Your task to perform on an android device: change the clock display to show seconds Image 0: 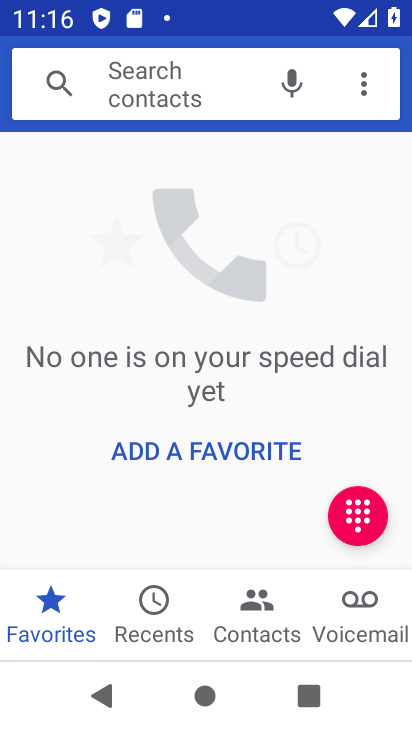
Step 0: press home button
Your task to perform on an android device: change the clock display to show seconds Image 1: 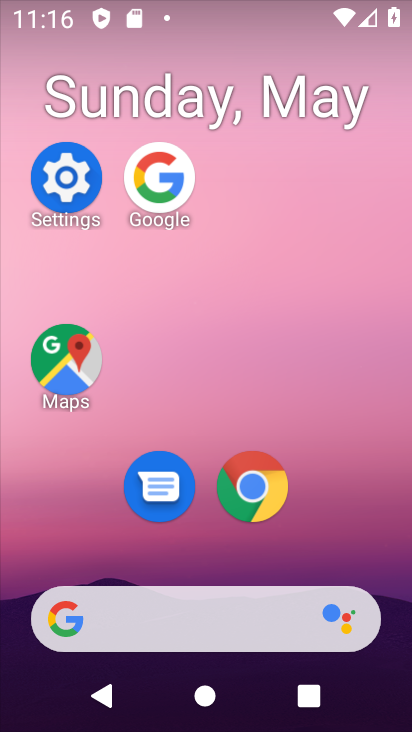
Step 1: drag from (291, 562) to (243, 113)
Your task to perform on an android device: change the clock display to show seconds Image 2: 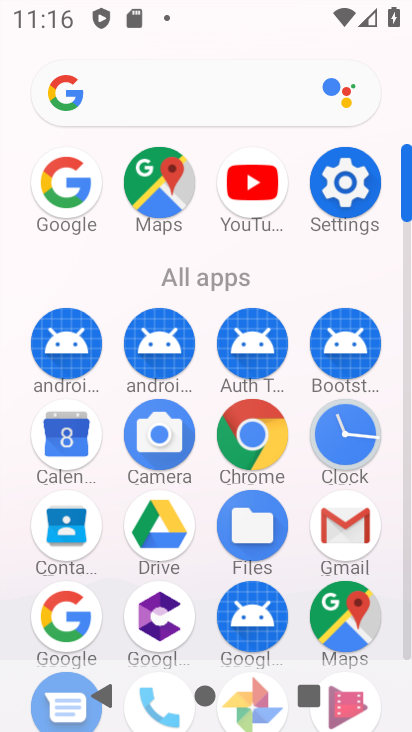
Step 2: drag from (344, 447) to (106, 234)
Your task to perform on an android device: change the clock display to show seconds Image 3: 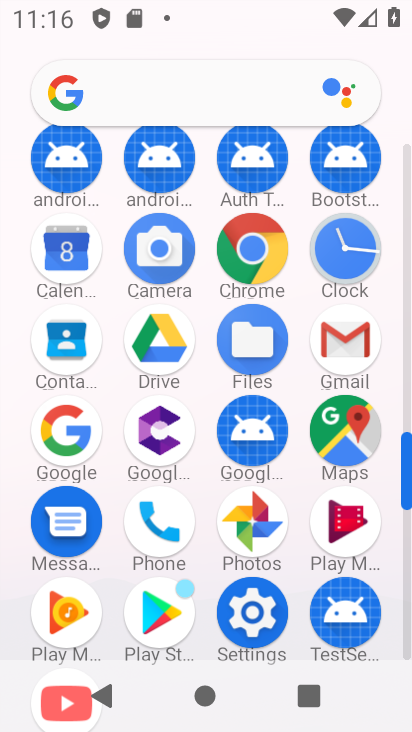
Step 3: drag from (330, 250) to (84, 292)
Your task to perform on an android device: change the clock display to show seconds Image 4: 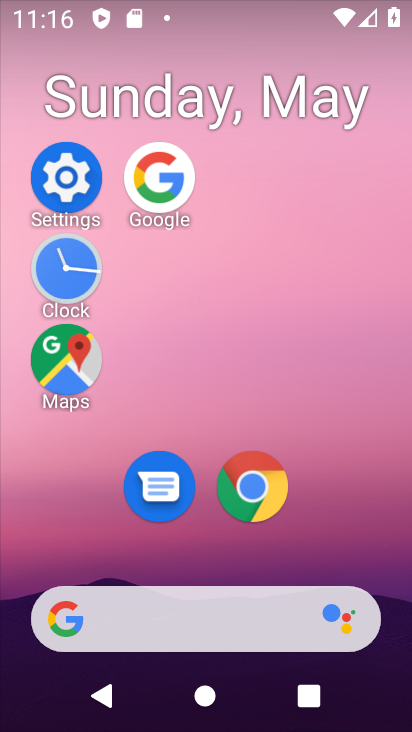
Step 4: click (96, 278)
Your task to perform on an android device: change the clock display to show seconds Image 5: 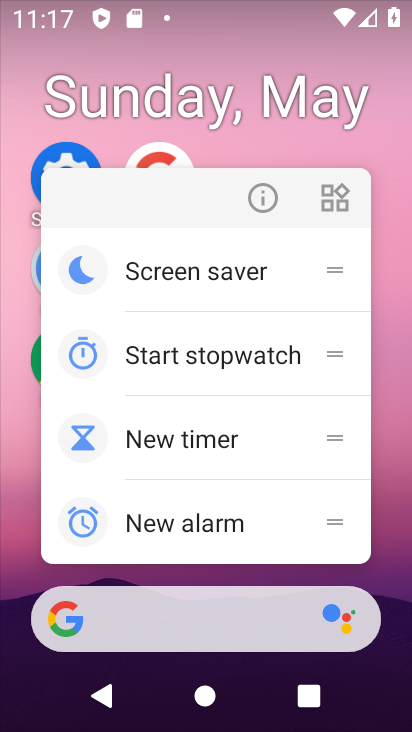
Step 5: click (26, 280)
Your task to perform on an android device: change the clock display to show seconds Image 6: 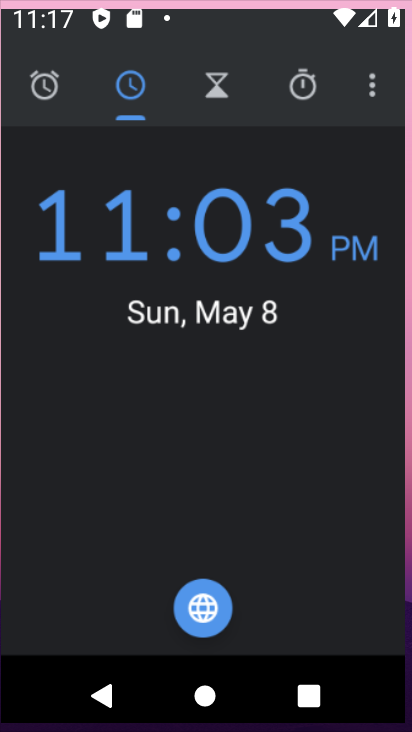
Step 6: click (35, 277)
Your task to perform on an android device: change the clock display to show seconds Image 7: 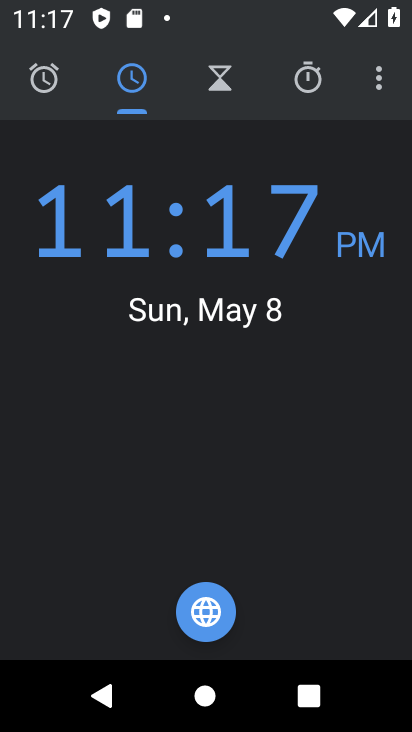
Step 7: click (372, 82)
Your task to perform on an android device: change the clock display to show seconds Image 8: 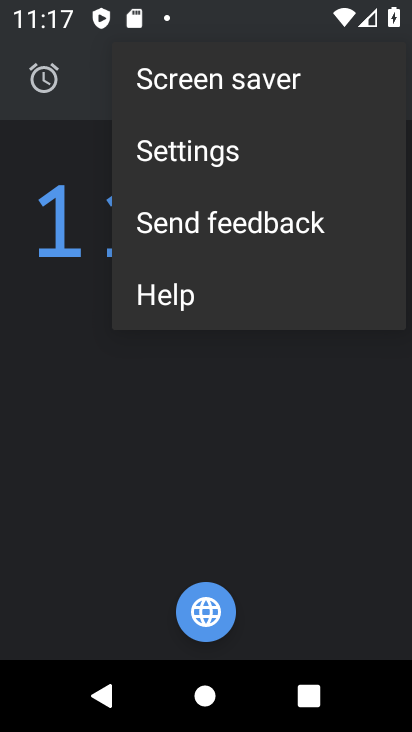
Step 8: click (315, 177)
Your task to perform on an android device: change the clock display to show seconds Image 9: 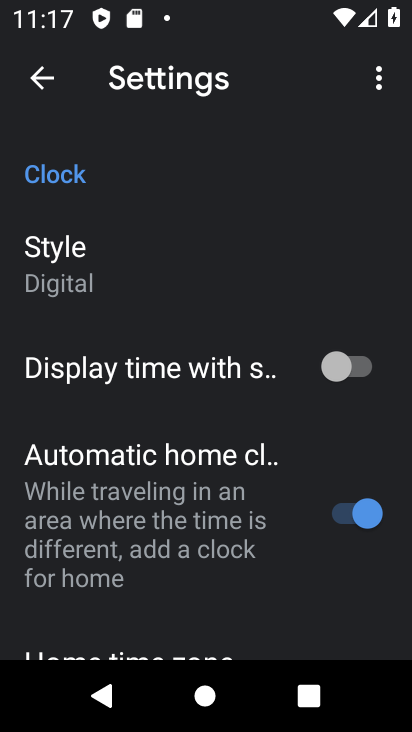
Step 9: drag from (151, 496) to (135, 155)
Your task to perform on an android device: change the clock display to show seconds Image 10: 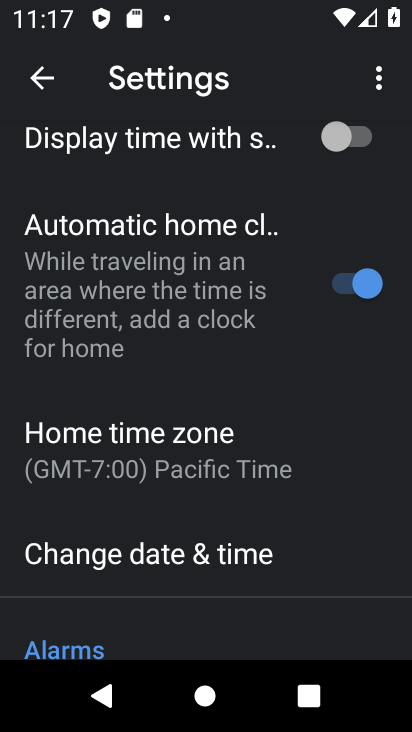
Step 10: drag from (217, 515) to (220, 224)
Your task to perform on an android device: change the clock display to show seconds Image 11: 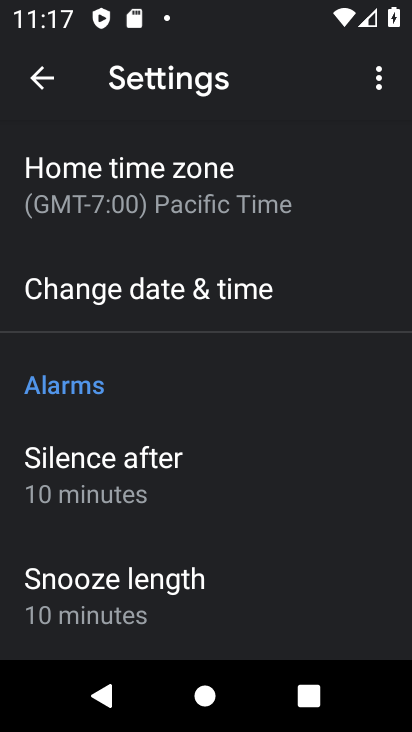
Step 11: drag from (221, 218) to (246, 605)
Your task to perform on an android device: change the clock display to show seconds Image 12: 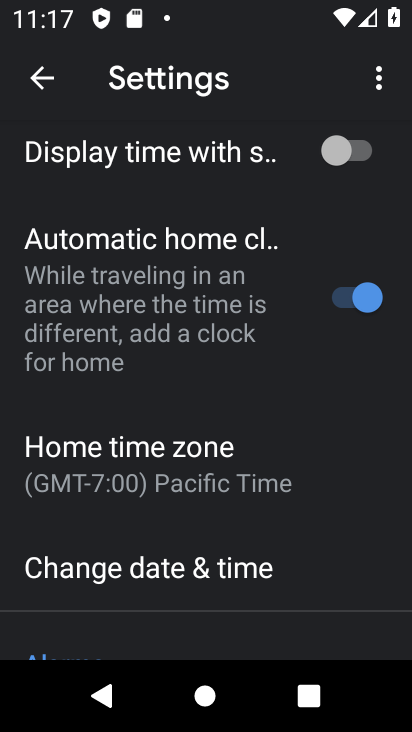
Step 12: drag from (248, 218) to (286, 579)
Your task to perform on an android device: change the clock display to show seconds Image 13: 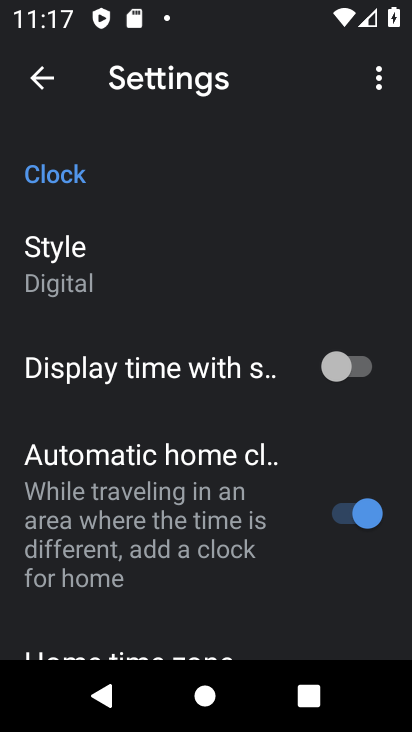
Step 13: click (361, 390)
Your task to perform on an android device: change the clock display to show seconds Image 14: 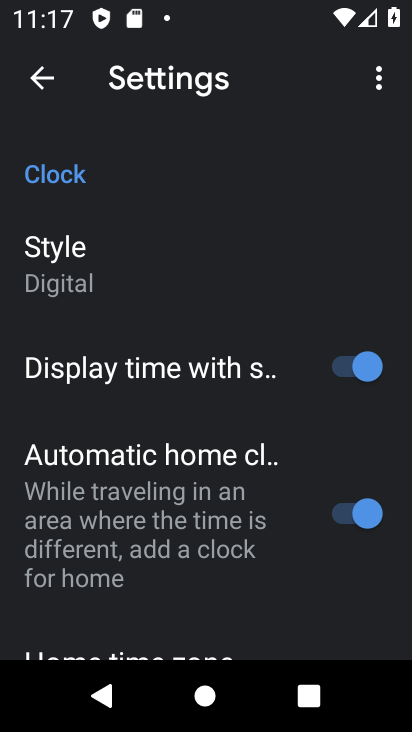
Step 14: task complete